Your task to perform on an android device: What's the weather? Image 0: 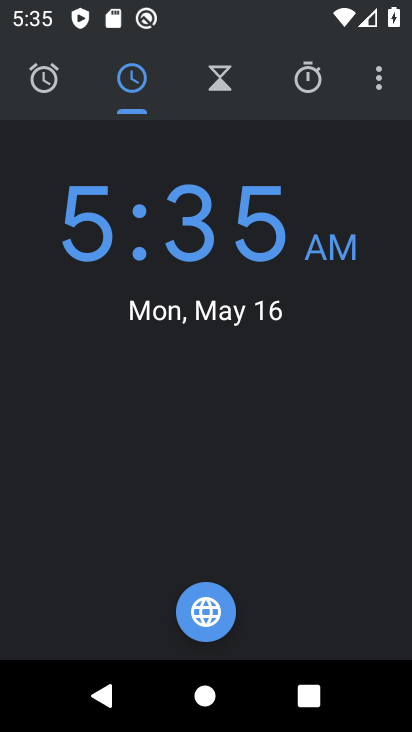
Step 0: press home button
Your task to perform on an android device: What's the weather? Image 1: 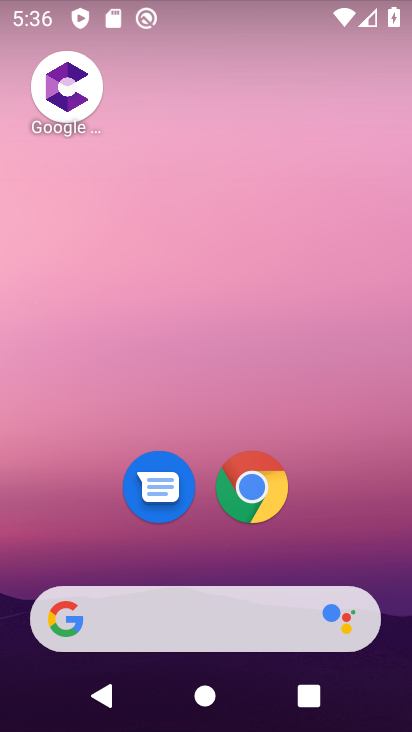
Step 1: drag from (145, 513) to (132, 210)
Your task to perform on an android device: What's the weather? Image 2: 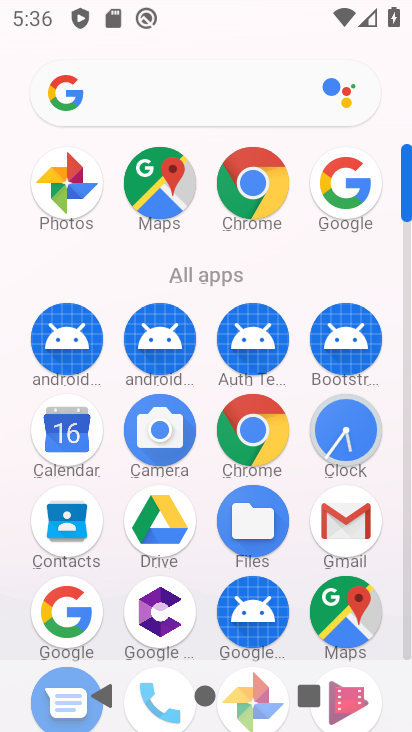
Step 2: click (64, 608)
Your task to perform on an android device: What's the weather? Image 3: 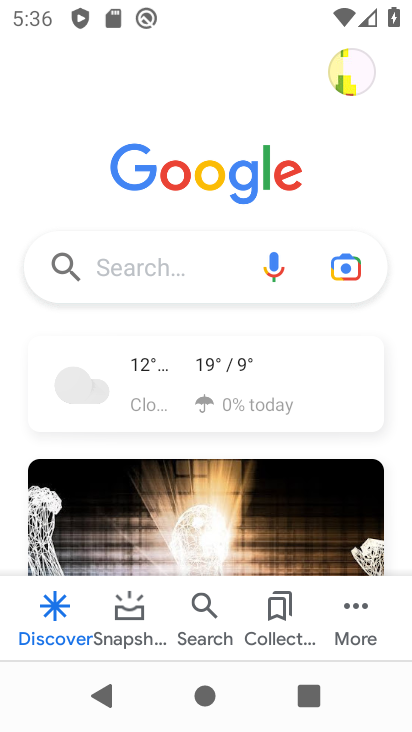
Step 3: click (225, 370)
Your task to perform on an android device: What's the weather? Image 4: 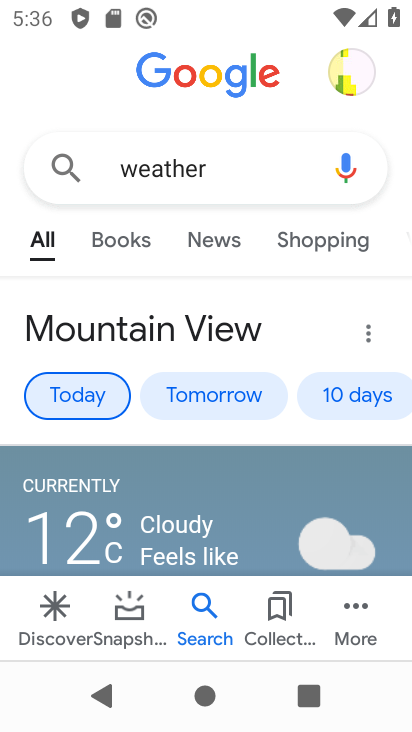
Step 4: task complete